Your task to perform on an android device: search for starred emails in the gmail app Image 0: 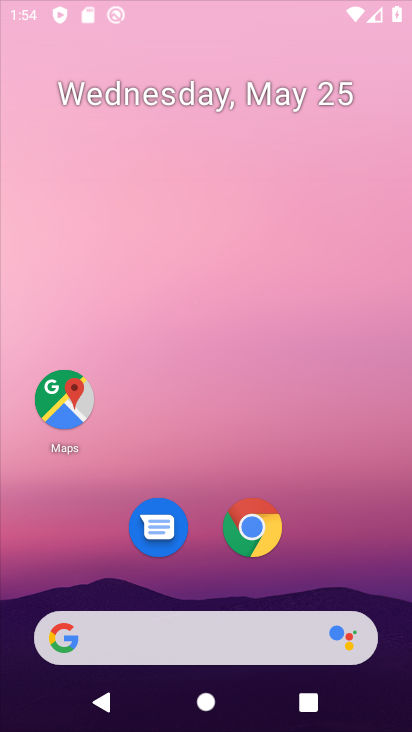
Step 0: click (325, 11)
Your task to perform on an android device: search for starred emails in the gmail app Image 1: 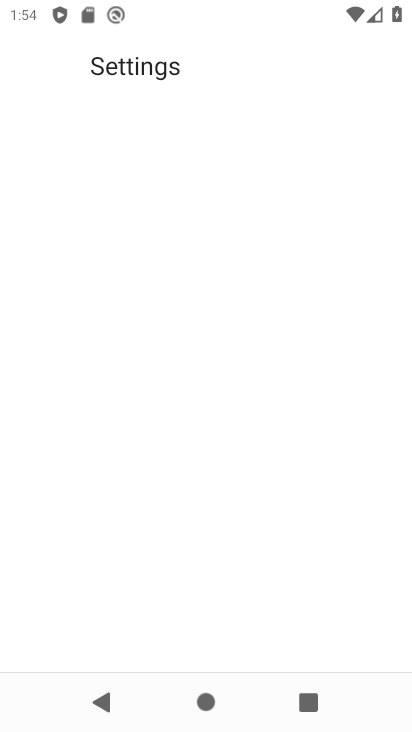
Step 1: drag from (201, 572) to (290, 101)
Your task to perform on an android device: search for starred emails in the gmail app Image 2: 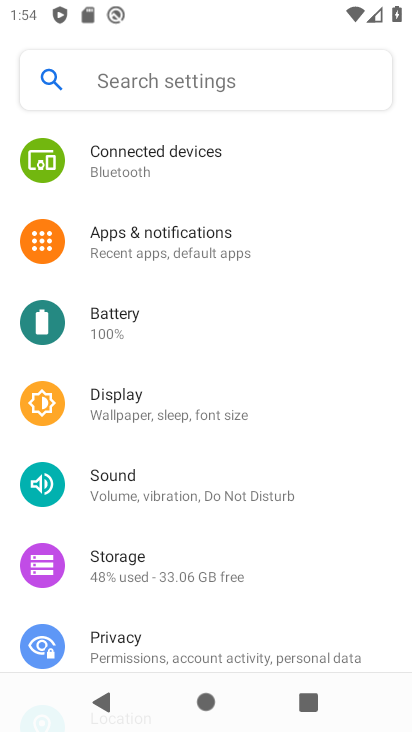
Step 2: drag from (273, 249) to (75, 726)
Your task to perform on an android device: search for starred emails in the gmail app Image 3: 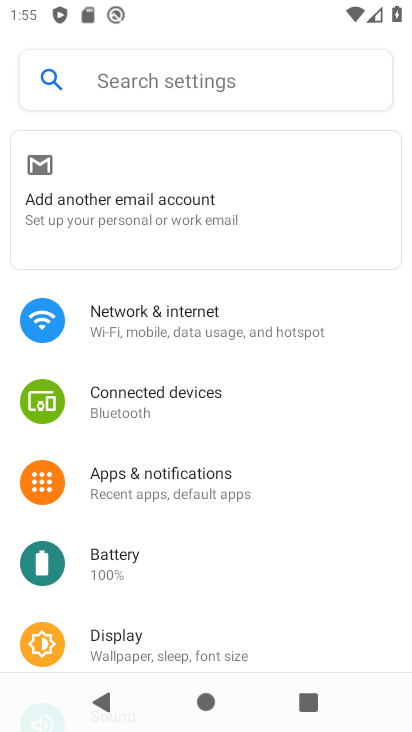
Step 3: press home button
Your task to perform on an android device: search for starred emails in the gmail app Image 4: 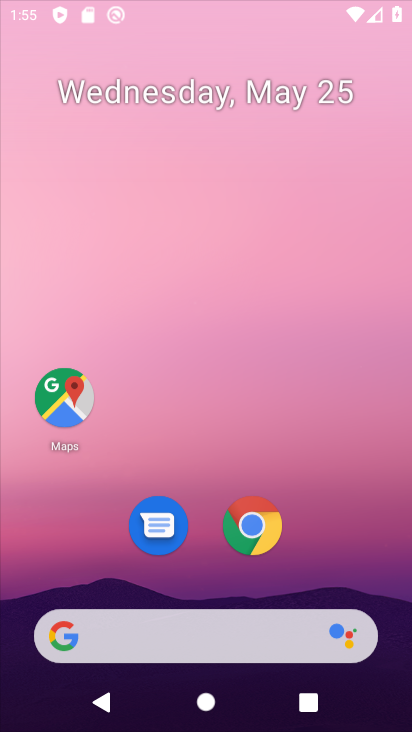
Step 4: drag from (189, 619) to (305, 16)
Your task to perform on an android device: search for starred emails in the gmail app Image 5: 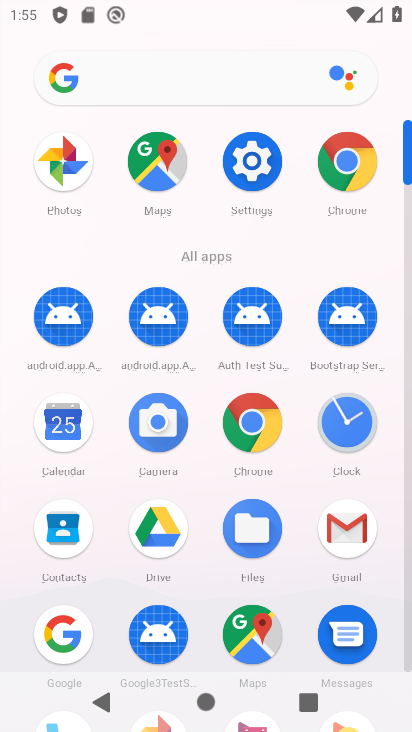
Step 5: click (359, 514)
Your task to perform on an android device: search for starred emails in the gmail app Image 6: 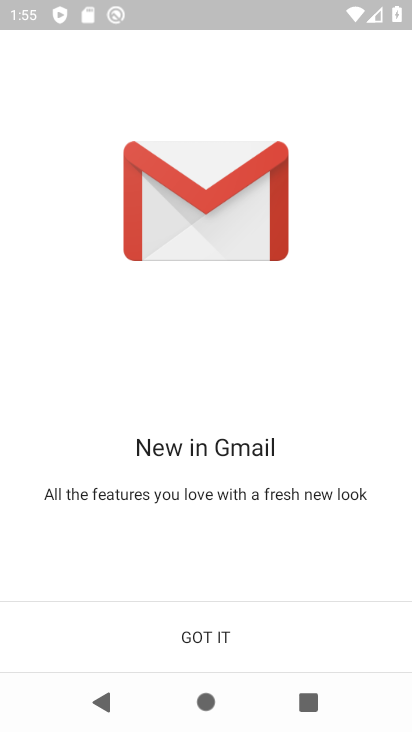
Step 6: click (215, 627)
Your task to perform on an android device: search for starred emails in the gmail app Image 7: 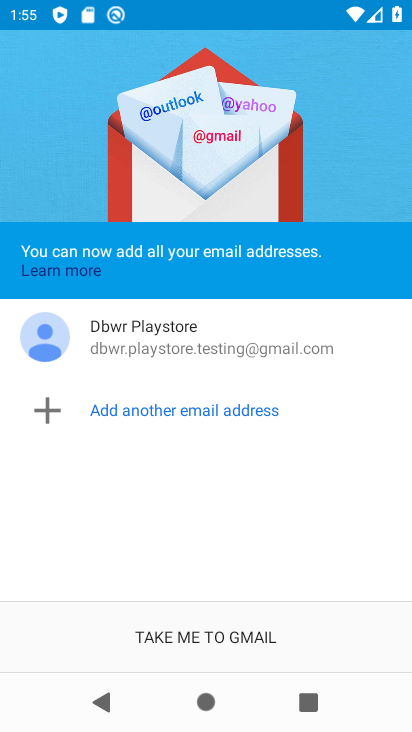
Step 7: click (170, 647)
Your task to perform on an android device: search for starred emails in the gmail app Image 8: 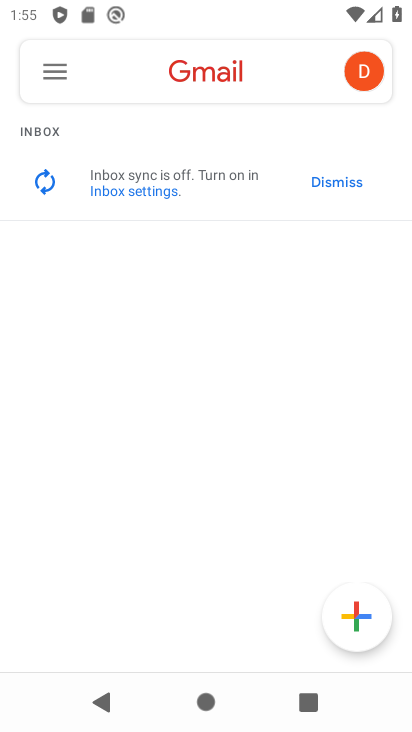
Step 8: click (48, 73)
Your task to perform on an android device: search for starred emails in the gmail app Image 9: 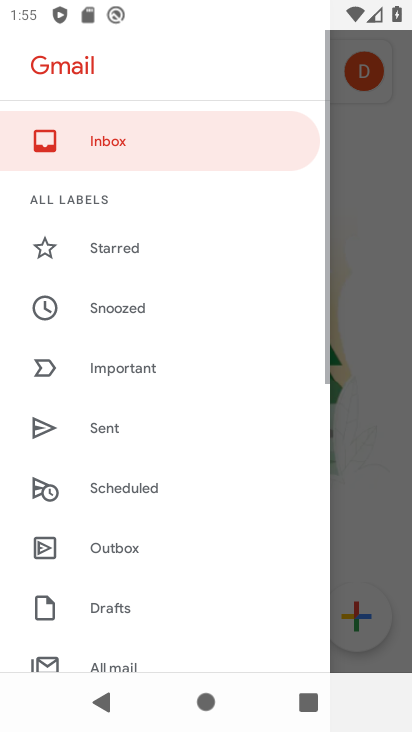
Step 9: drag from (111, 593) to (204, 72)
Your task to perform on an android device: search for starred emails in the gmail app Image 10: 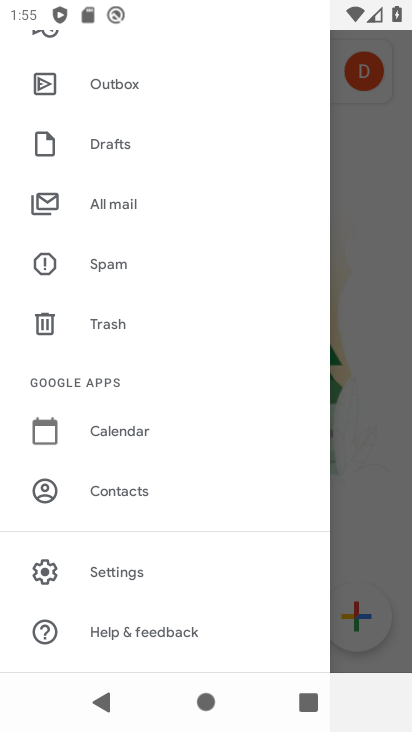
Step 10: drag from (206, 110) to (260, 534)
Your task to perform on an android device: search for starred emails in the gmail app Image 11: 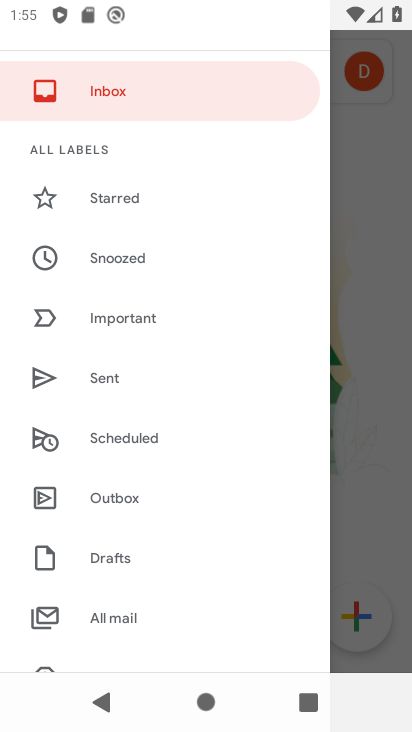
Step 11: click (117, 192)
Your task to perform on an android device: search for starred emails in the gmail app Image 12: 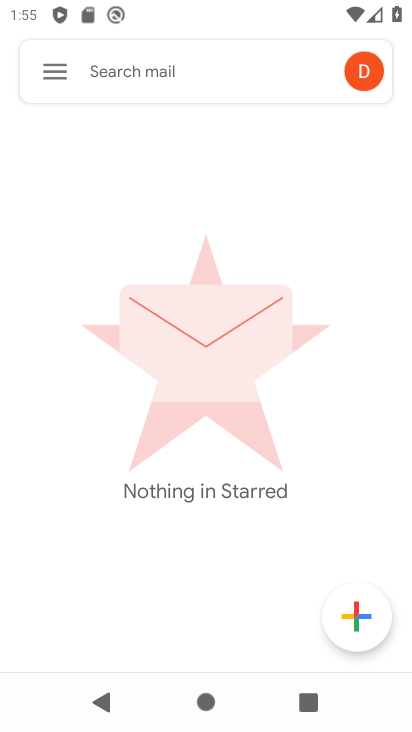
Step 12: task complete